Your task to perform on an android device: change the clock display to show seconds Image 0: 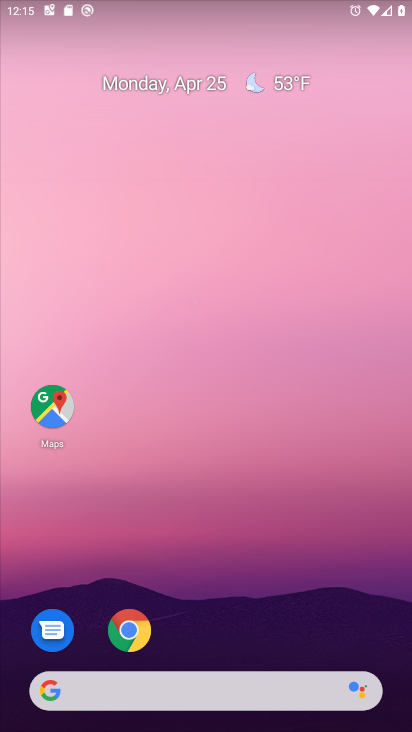
Step 0: drag from (209, 617) to (278, 112)
Your task to perform on an android device: change the clock display to show seconds Image 1: 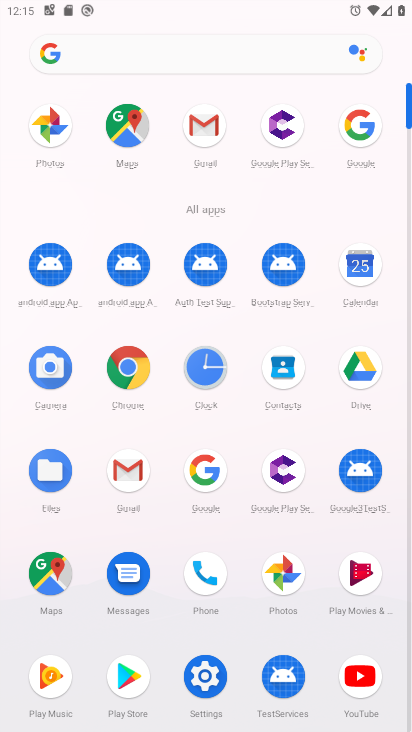
Step 1: click (207, 364)
Your task to perform on an android device: change the clock display to show seconds Image 2: 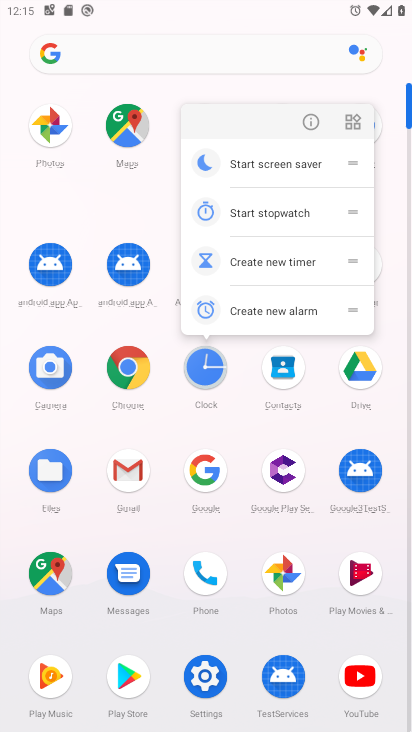
Step 2: click (309, 128)
Your task to perform on an android device: change the clock display to show seconds Image 3: 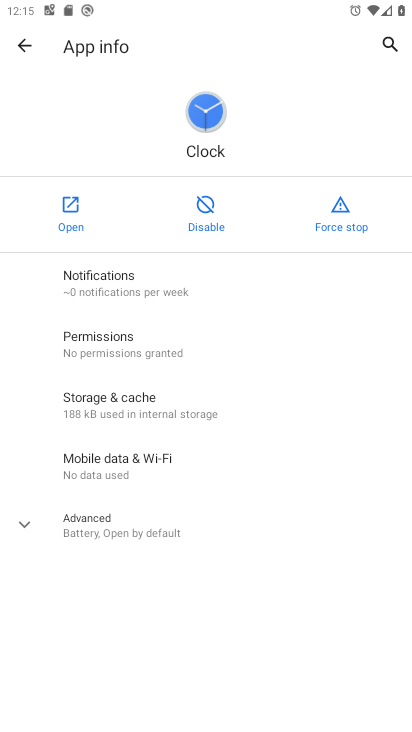
Step 3: click (79, 201)
Your task to perform on an android device: change the clock display to show seconds Image 4: 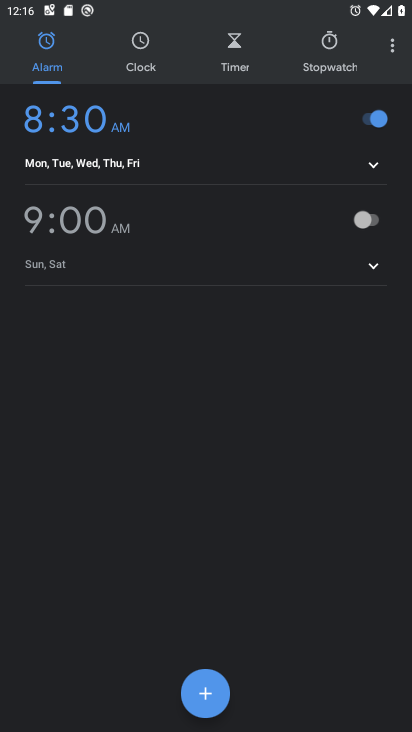
Step 4: click (392, 44)
Your task to perform on an android device: change the clock display to show seconds Image 5: 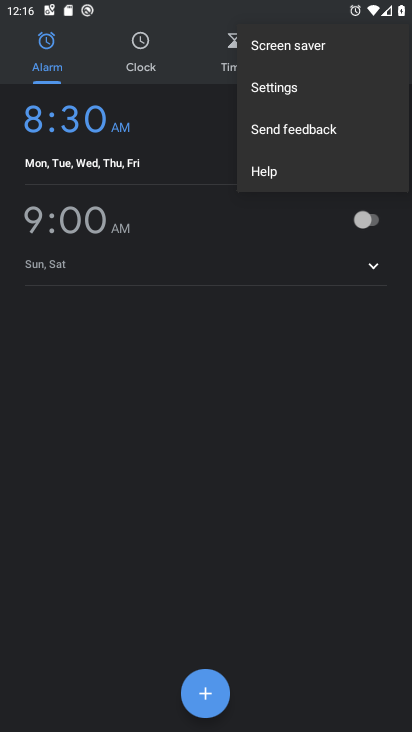
Step 5: click (308, 86)
Your task to perform on an android device: change the clock display to show seconds Image 6: 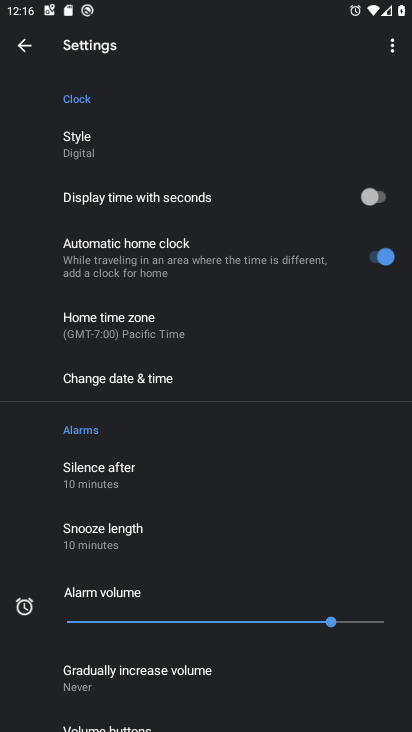
Step 6: click (363, 199)
Your task to perform on an android device: change the clock display to show seconds Image 7: 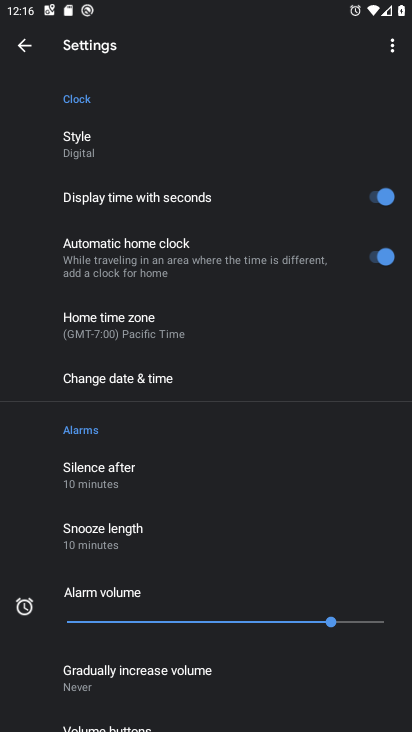
Step 7: task complete